Your task to perform on an android device: open wifi settings Image 0: 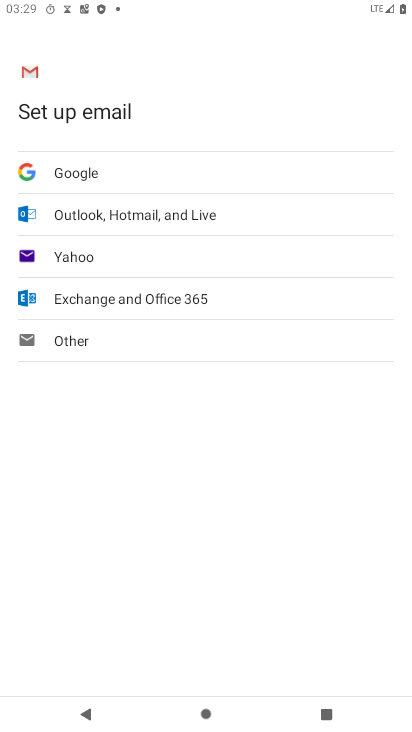
Step 0: press home button
Your task to perform on an android device: open wifi settings Image 1: 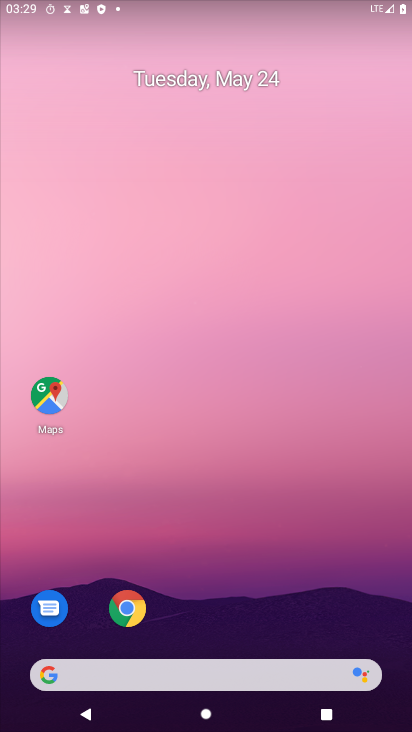
Step 1: drag from (260, 617) to (186, 171)
Your task to perform on an android device: open wifi settings Image 2: 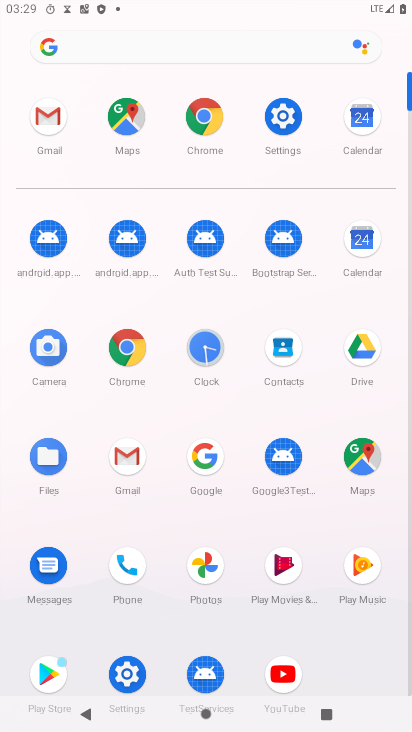
Step 2: click (275, 124)
Your task to perform on an android device: open wifi settings Image 3: 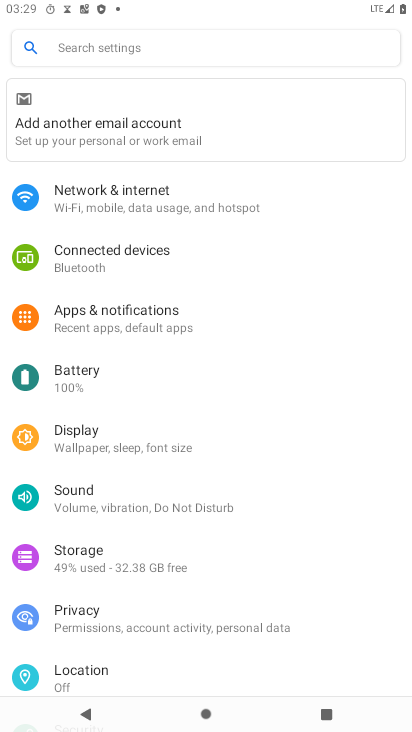
Step 3: click (264, 219)
Your task to perform on an android device: open wifi settings Image 4: 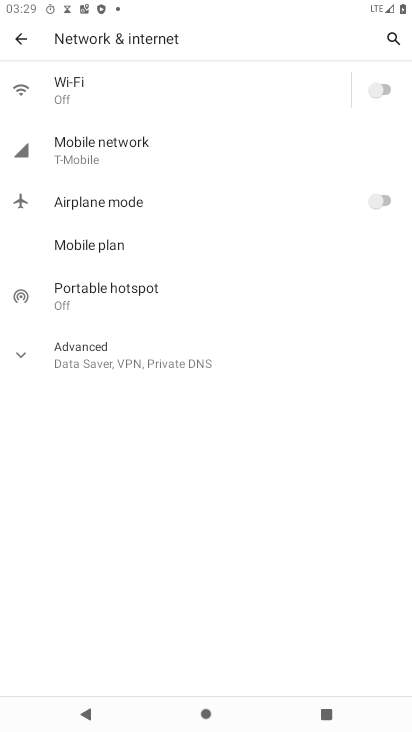
Step 4: click (172, 93)
Your task to perform on an android device: open wifi settings Image 5: 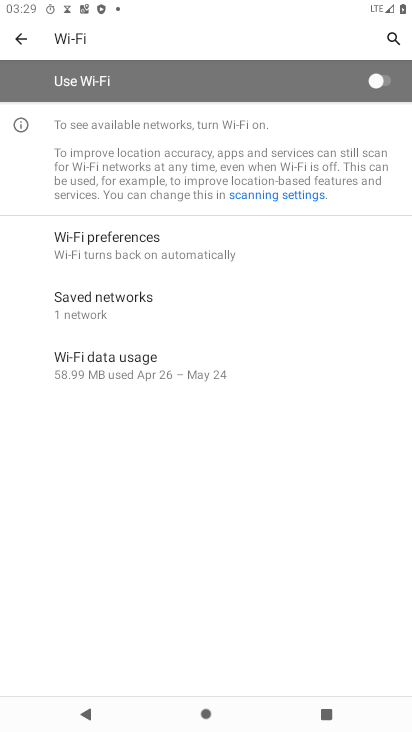
Step 5: task complete